Your task to perform on an android device: change the upload size in google photos Image 0: 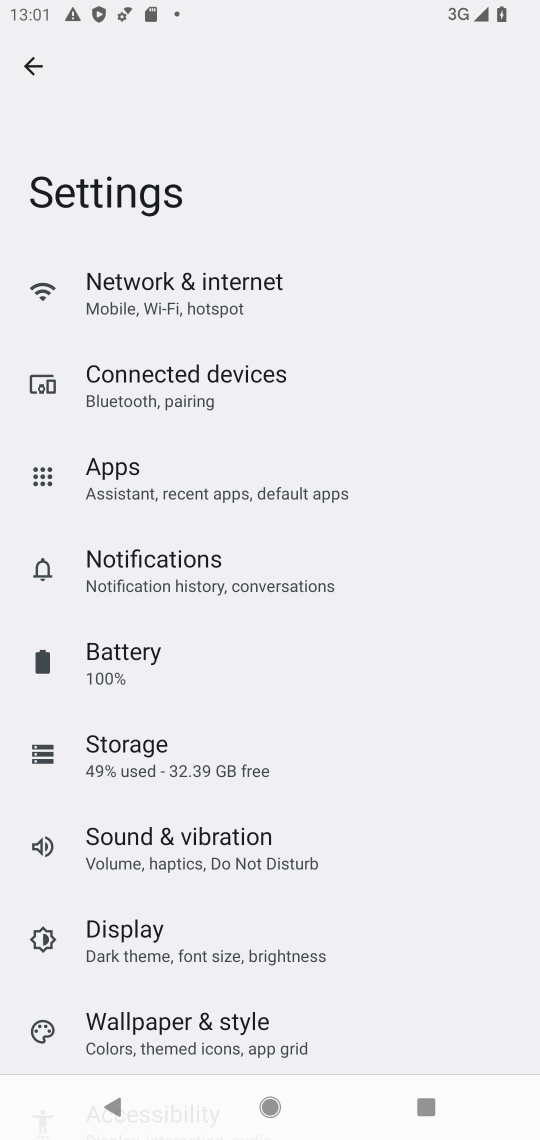
Step 0: press home button
Your task to perform on an android device: change the upload size in google photos Image 1: 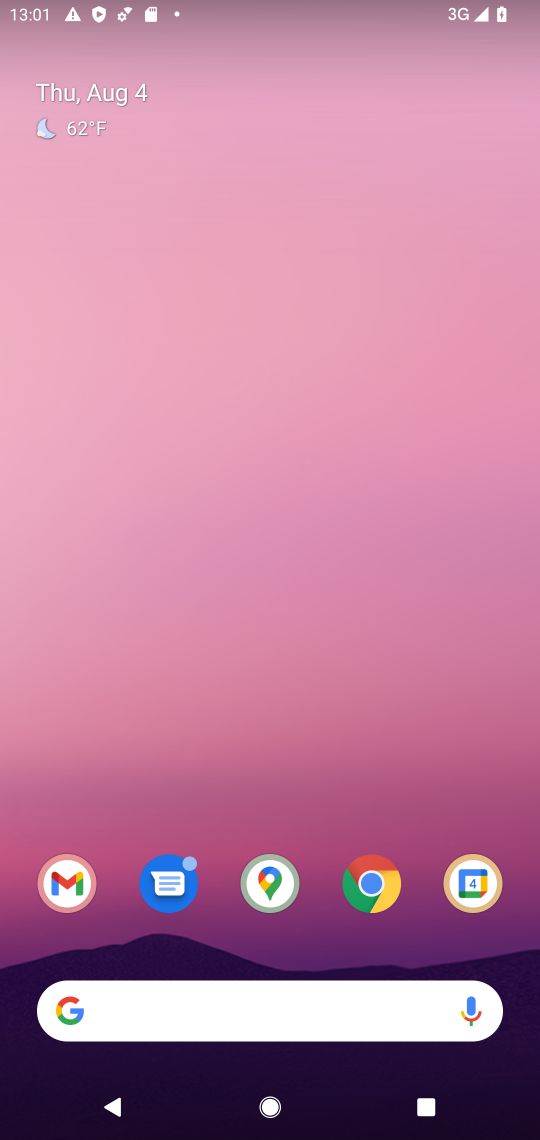
Step 1: drag from (232, 937) to (373, 149)
Your task to perform on an android device: change the upload size in google photos Image 2: 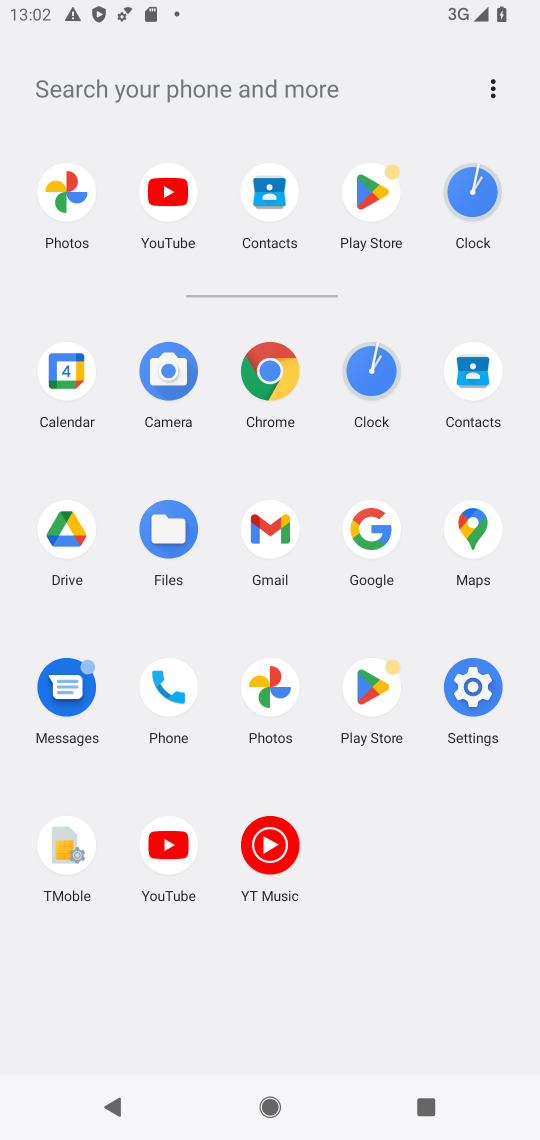
Step 2: click (254, 699)
Your task to perform on an android device: change the upload size in google photos Image 3: 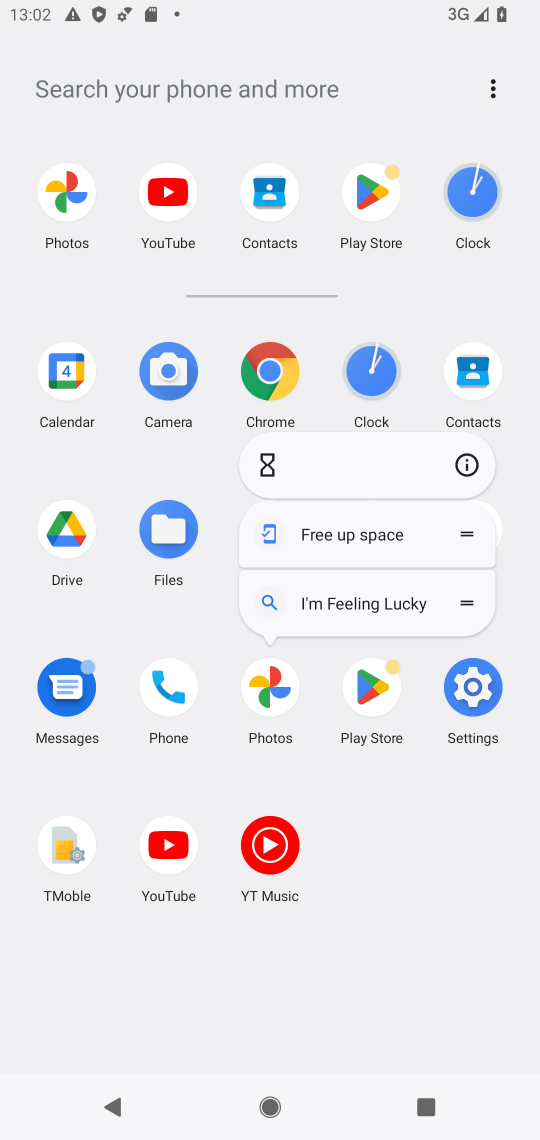
Step 3: click (464, 467)
Your task to perform on an android device: change the upload size in google photos Image 4: 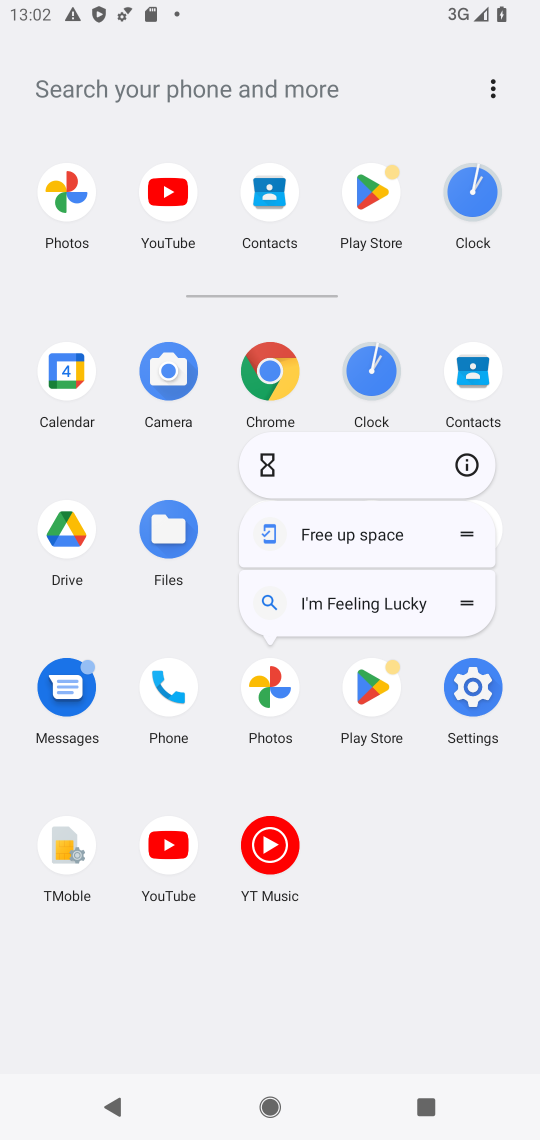
Step 4: click (471, 458)
Your task to perform on an android device: change the upload size in google photos Image 5: 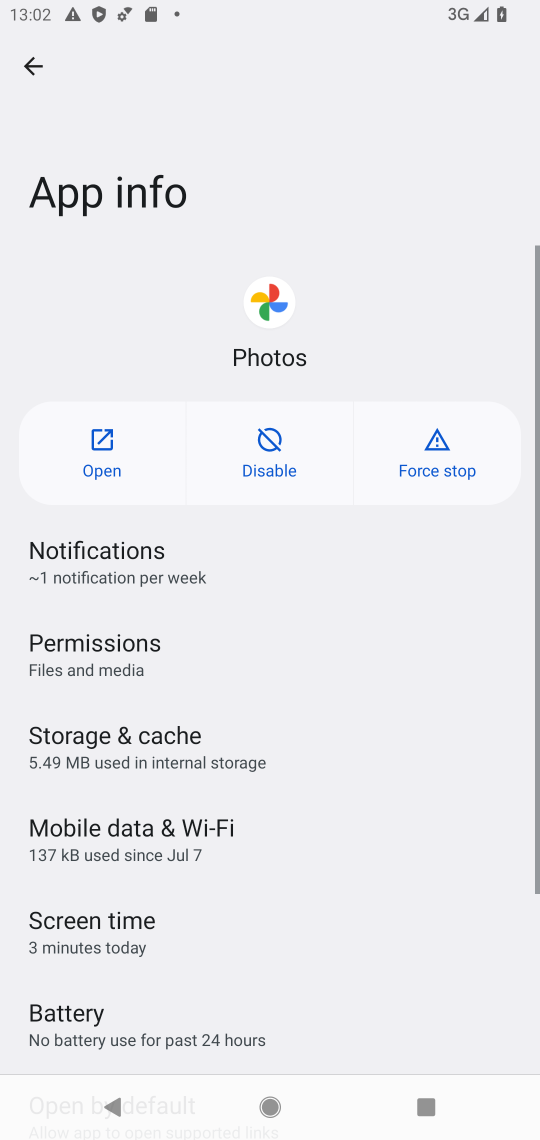
Step 5: click (76, 466)
Your task to perform on an android device: change the upload size in google photos Image 6: 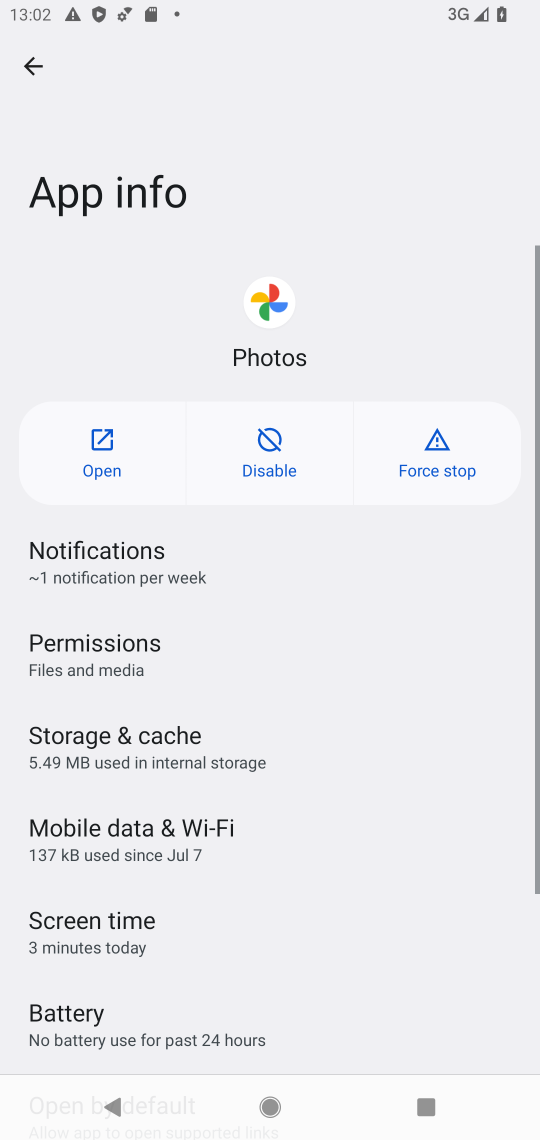
Step 6: click (76, 466)
Your task to perform on an android device: change the upload size in google photos Image 7: 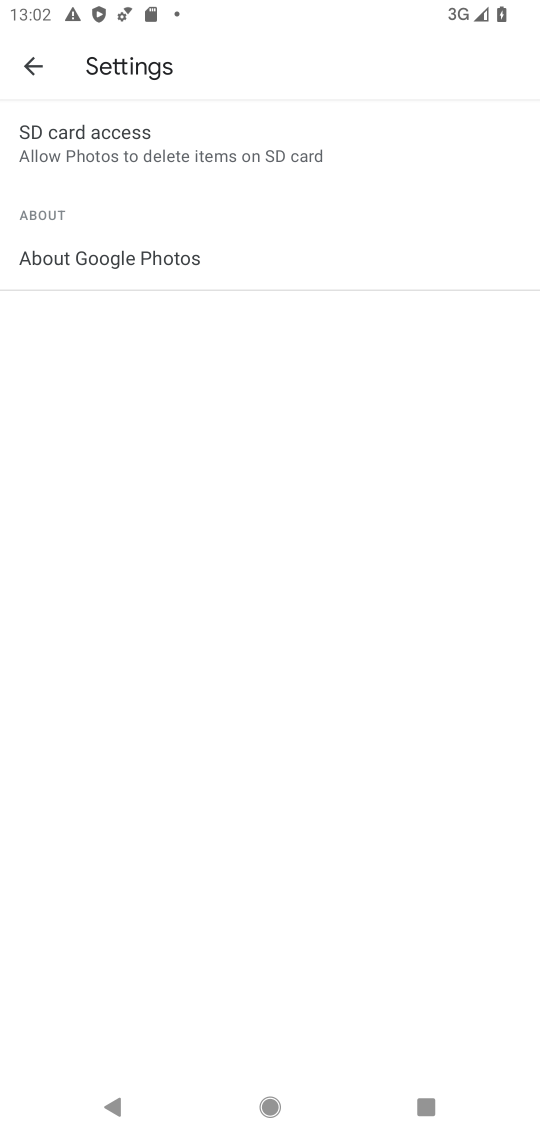
Step 7: click (37, 67)
Your task to perform on an android device: change the upload size in google photos Image 8: 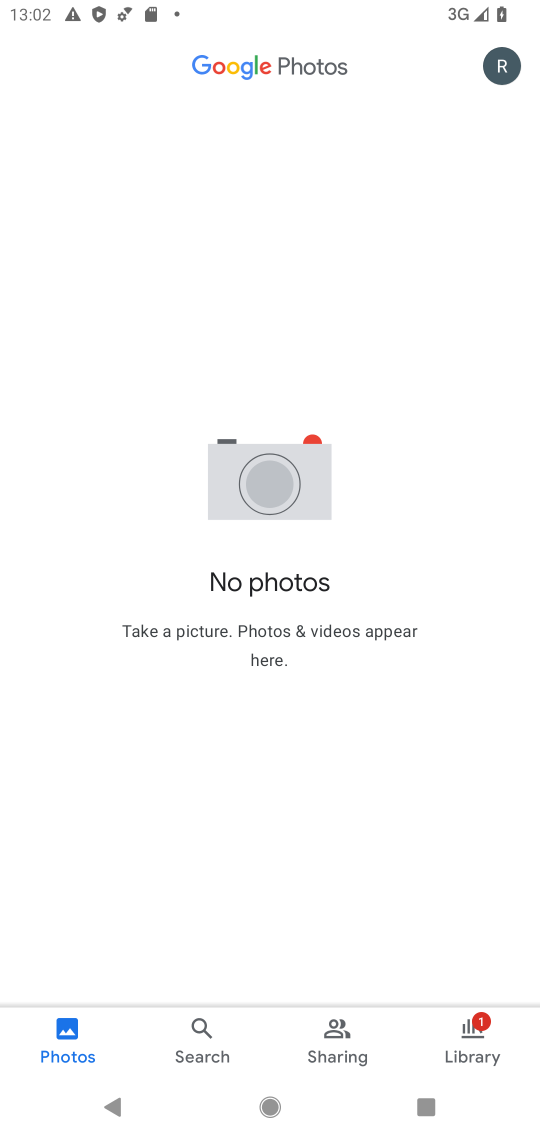
Step 8: click (463, 1024)
Your task to perform on an android device: change the upload size in google photos Image 9: 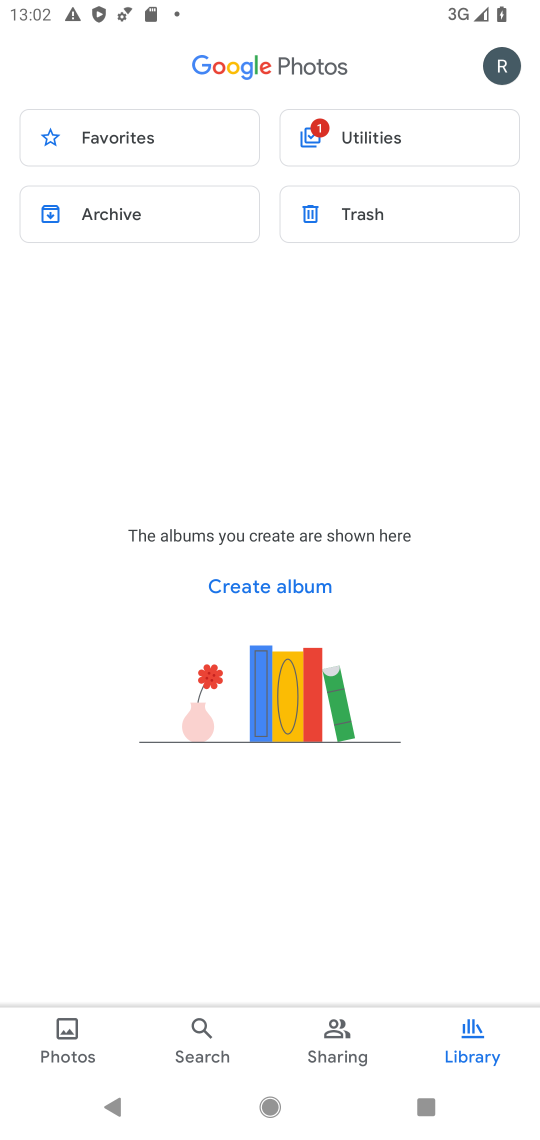
Step 9: click (203, 1039)
Your task to perform on an android device: change the upload size in google photos Image 10: 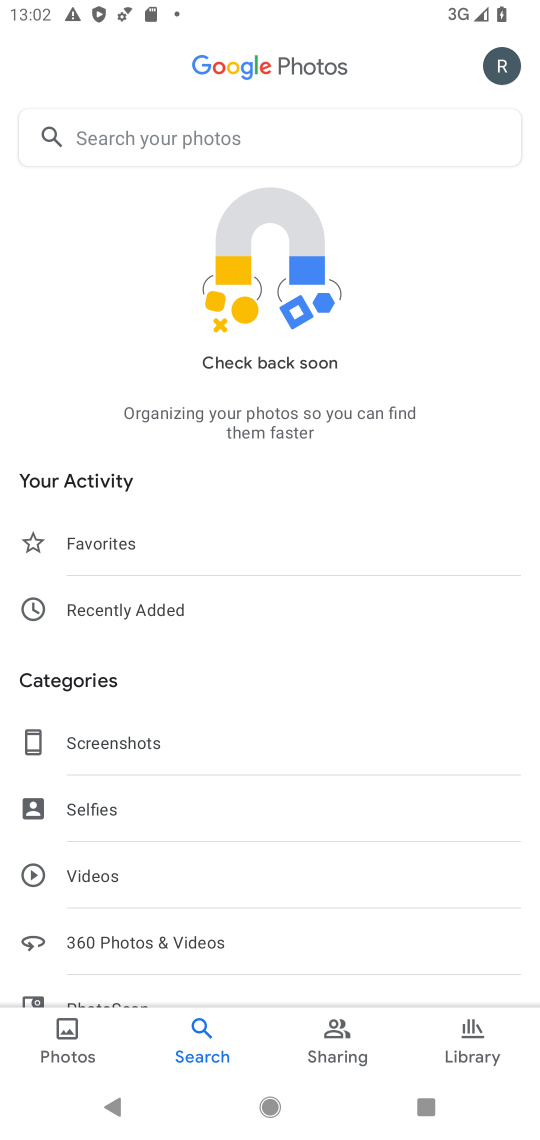
Step 10: click (487, 66)
Your task to perform on an android device: change the upload size in google photos Image 11: 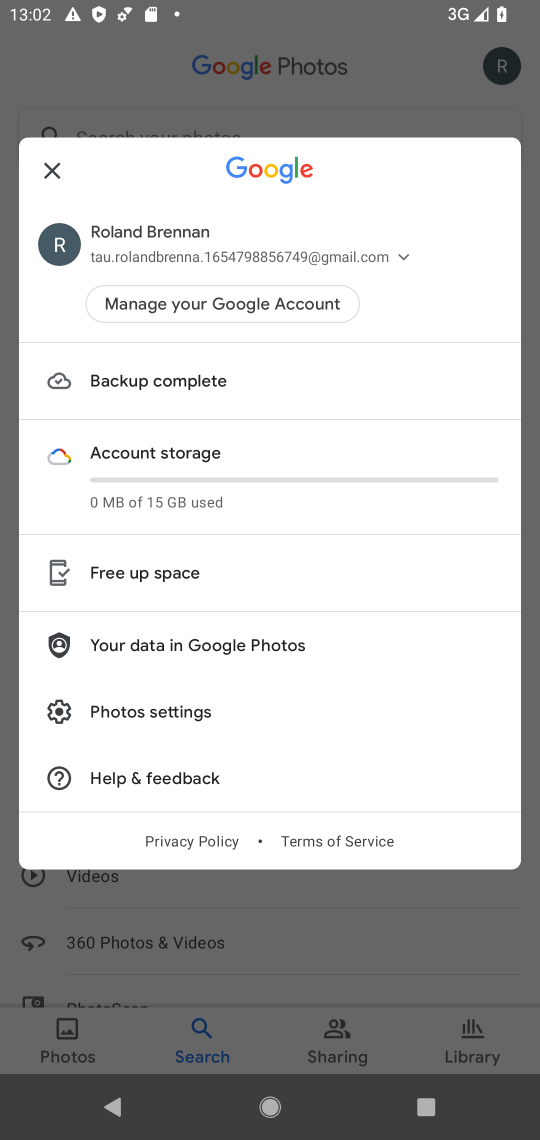
Step 11: click (131, 712)
Your task to perform on an android device: change the upload size in google photos Image 12: 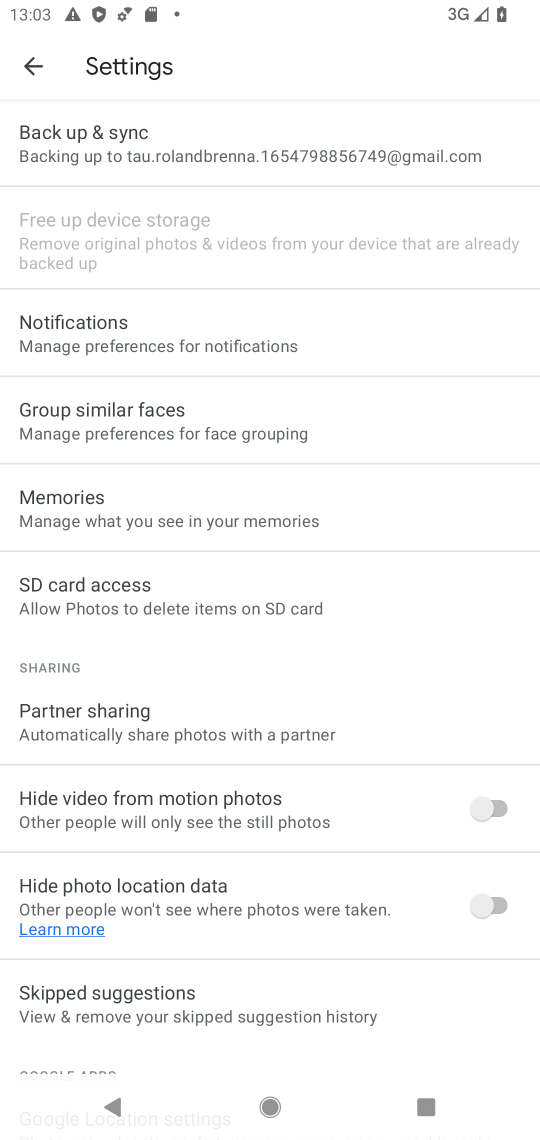
Step 12: drag from (248, 891) to (288, 453)
Your task to perform on an android device: change the upload size in google photos Image 13: 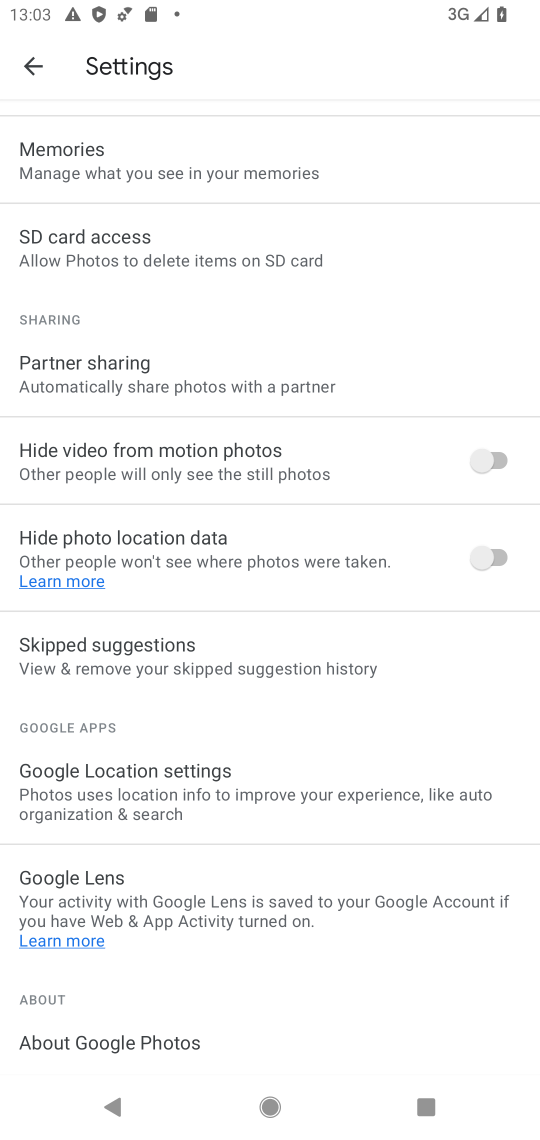
Step 13: drag from (284, 264) to (158, 1127)
Your task to perform on an android device: change the upload size in google photos Image 14: 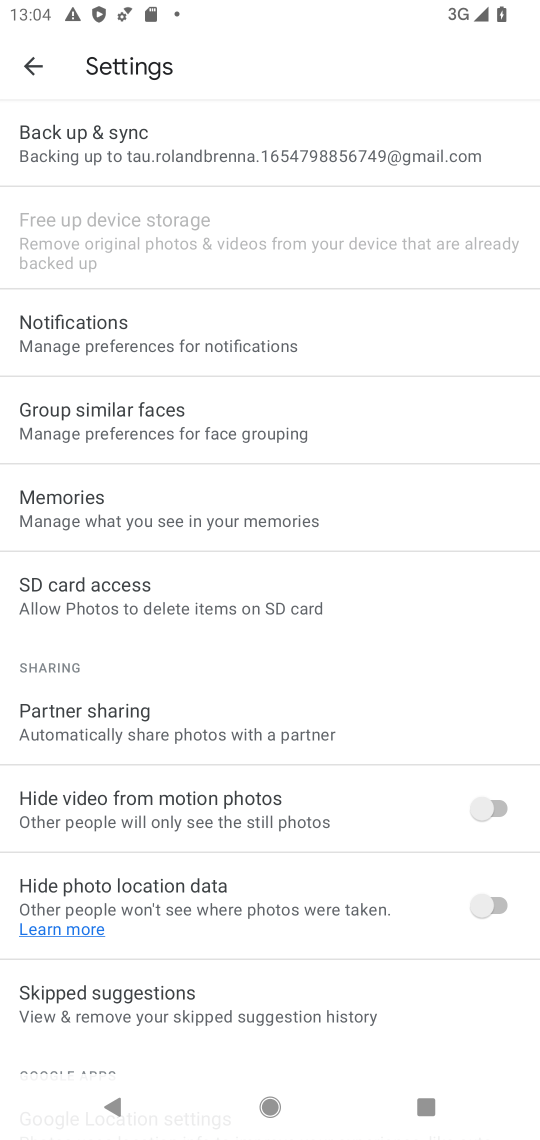
Step 14: click (194, 146)
Your task to perform on an android device: change the upload size in google photos Image 15: 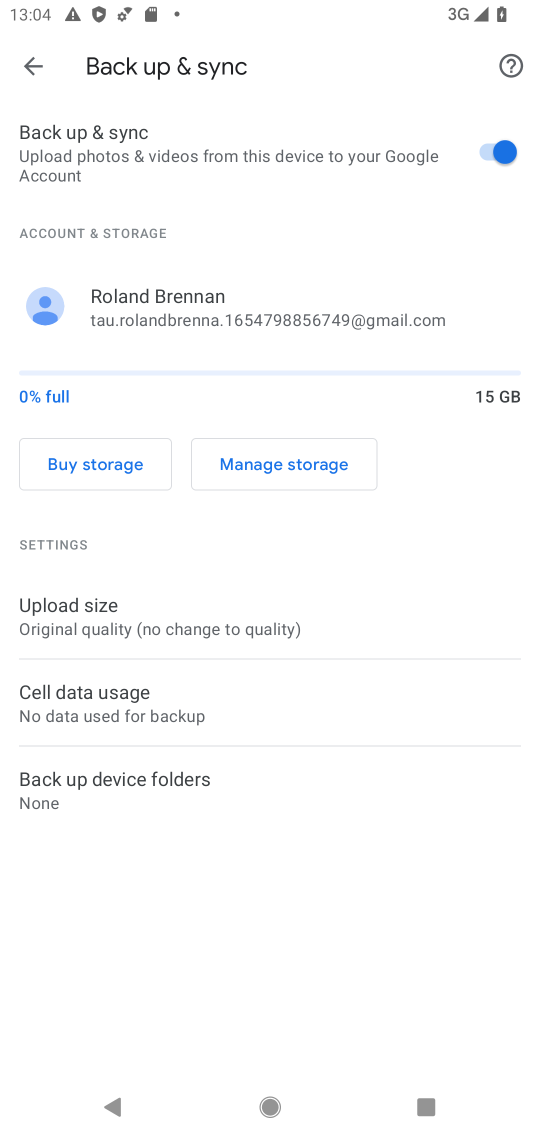
Step 15: drag from (266, 813) to (245, 210)
Your task to perform on an android device: change the upload size in google photos Image 16: 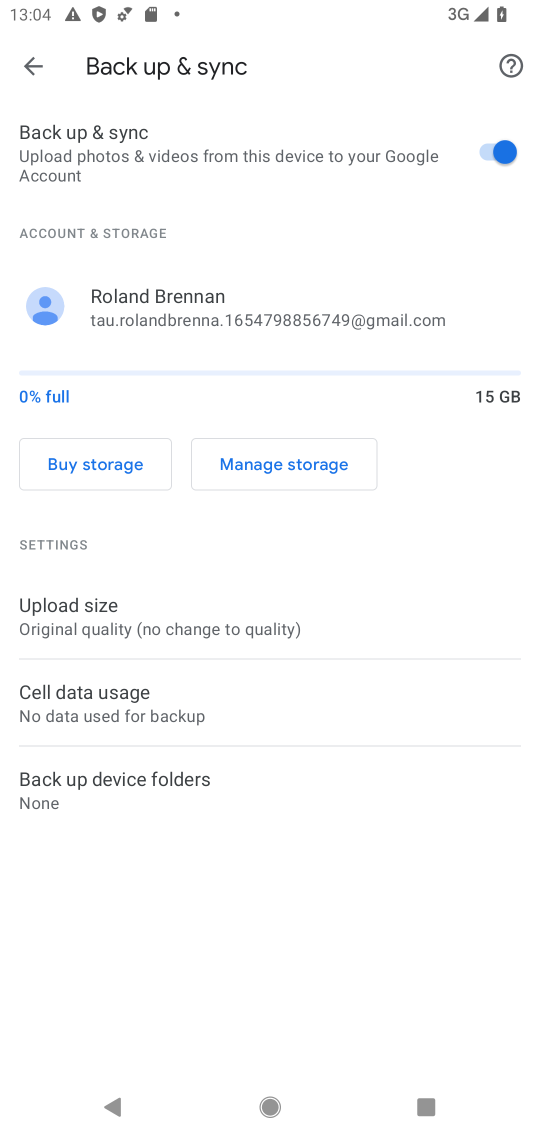
Step 16: drag from (283, 216) to (338, 936)
Your task to perform on an android device: change the upload size in google photos Image 17: 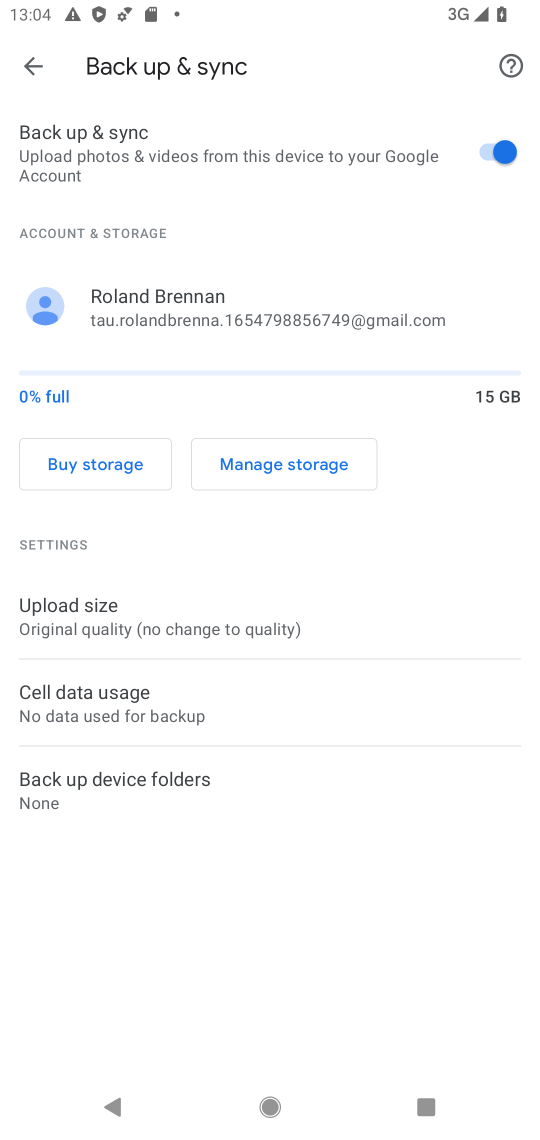
Step 17: click (181, 628)
Your task to perform on an android device: change the upload size in google photos Image 18: 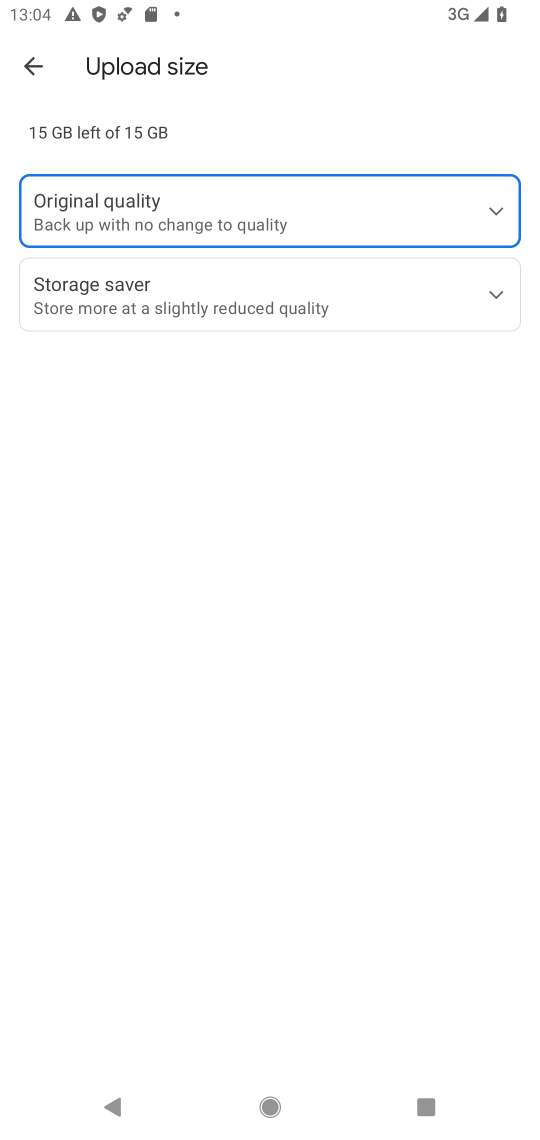
Step 18: drag from (245, 791) to (250, 325)
Your task to perform on an android device: change the upload size in google photos Image 19: 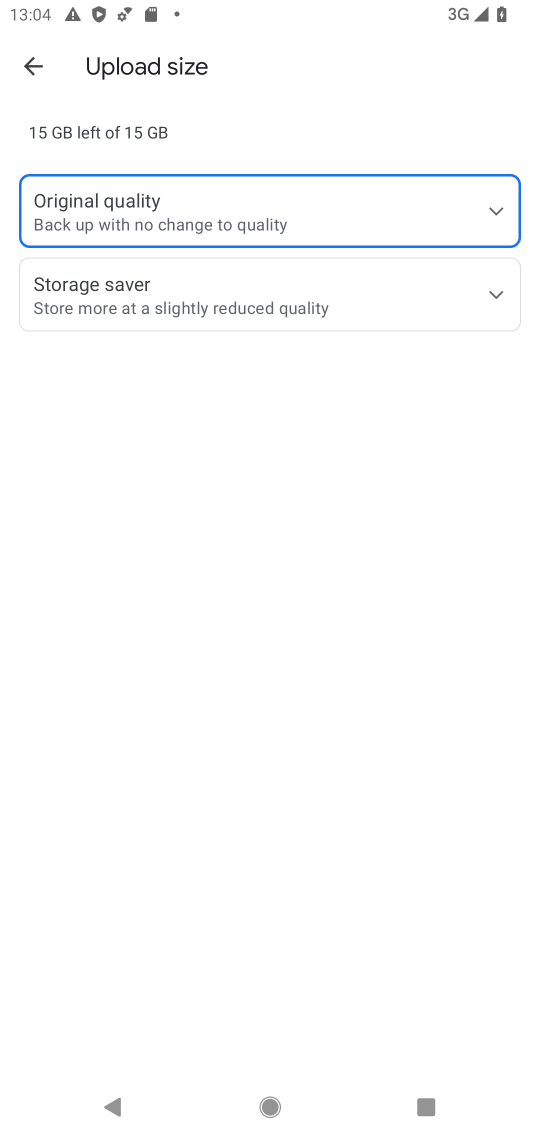
Step 19: click (243, 290)
Your task to perform on an android device: change the upload size in google photos Image 20: 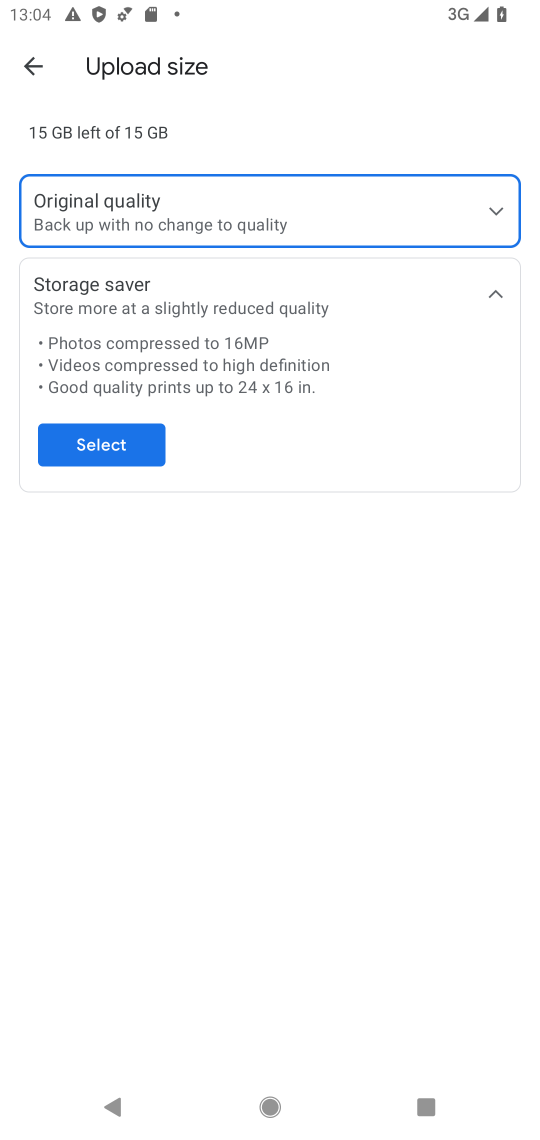
Step 20: click (153, 444)
Your task to perform on an android device: change the upload size in google photos Image 21: 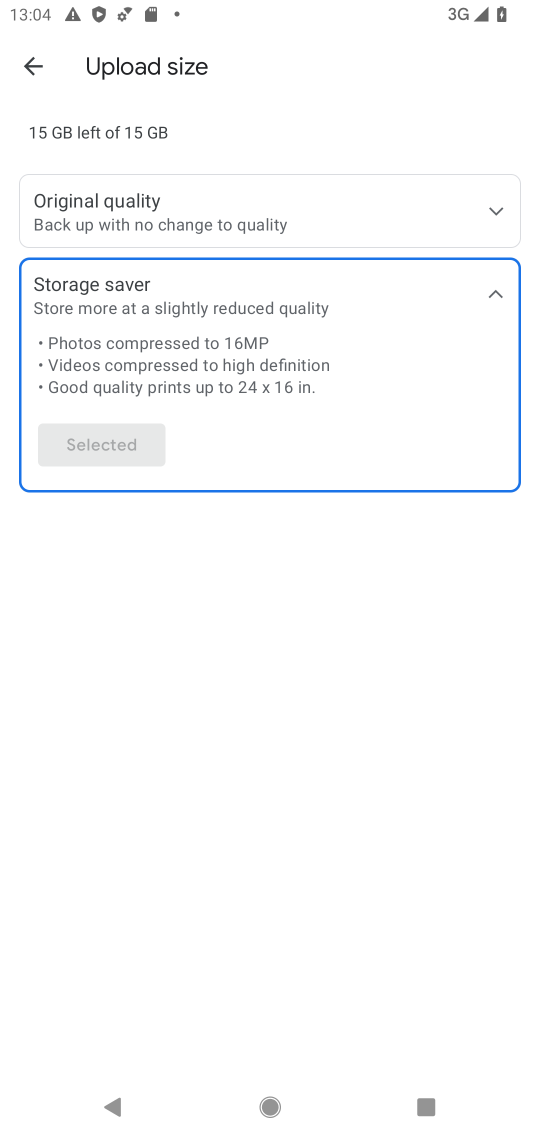
Step 21: task complete